Your task to perform on an android device: see tabs open on other devices in the chrome app Image 0: 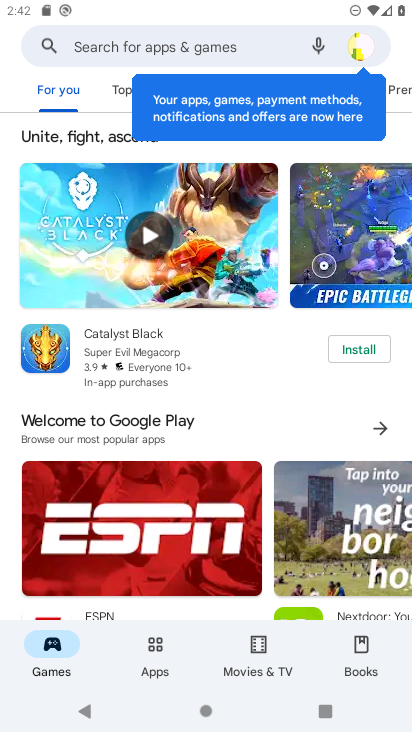
Step 0: press home button
Your task to perform on an android device: see tabs open on other devices in the chrome app Image 1: 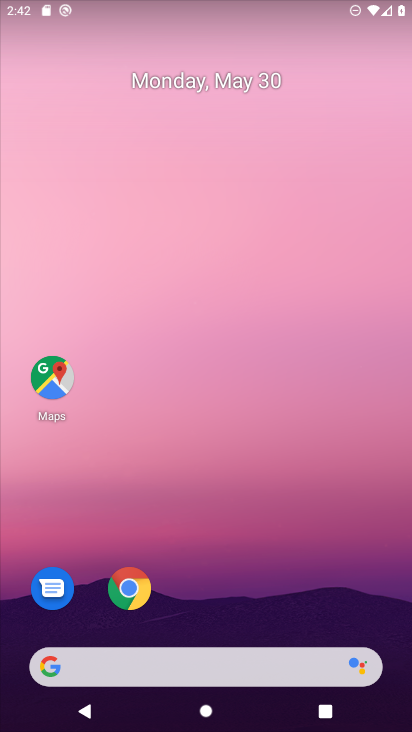
Step 1: click (129, 578)
Your task to perform on an android device: see tabs open on other devices in the chrome app Image 2: 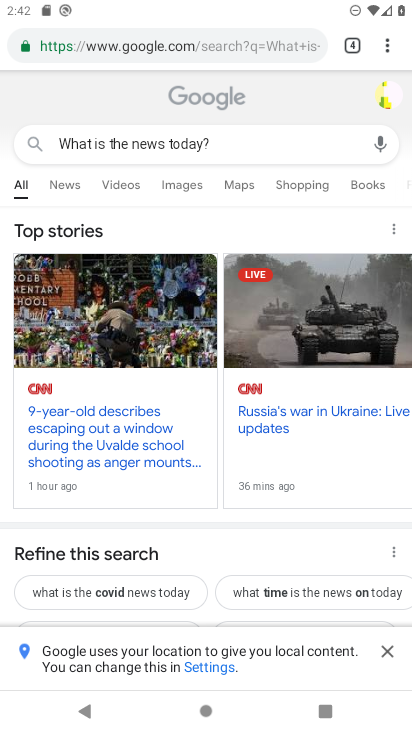
Step 2: click (389, 35)
Your task to perform on an android device: see tabs open on other devices in the chrome app Image 3: 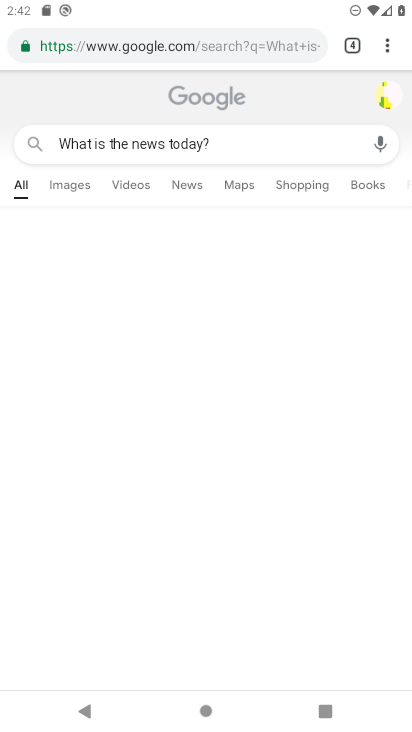
Step 3: click (384, 40)
Your task to perform on an android device: see tabs open on other devices in the chrome app Image 4: 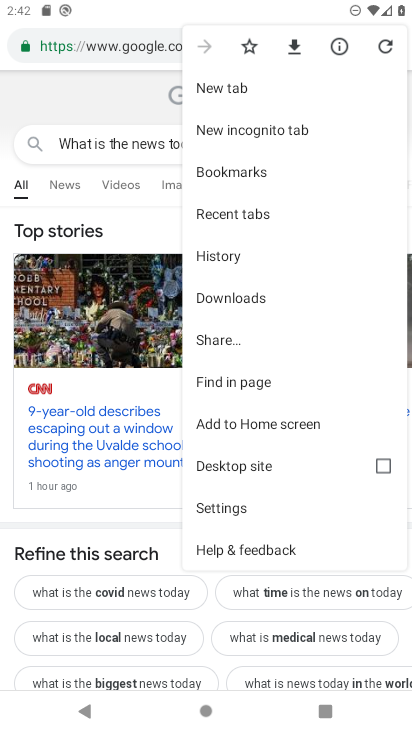
Step 4: click (253, 84)
Your task to perform on an android device: see tabs open on other devices in the chrome app Image 5: 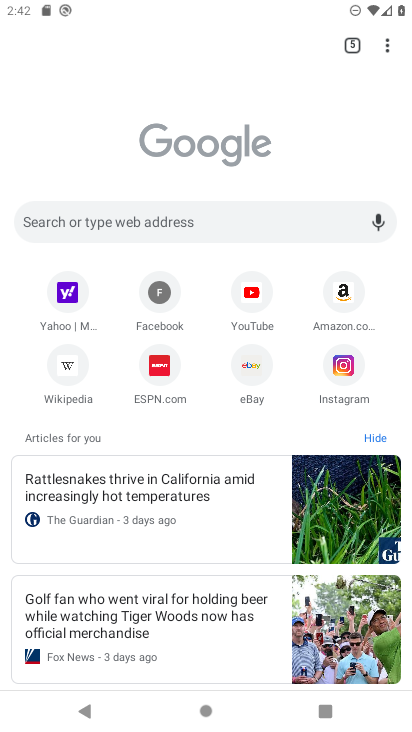
Step 5: click (384, 48)
Your task to perform on an android device: see tabs open on other devices in the chrome app Image 6: 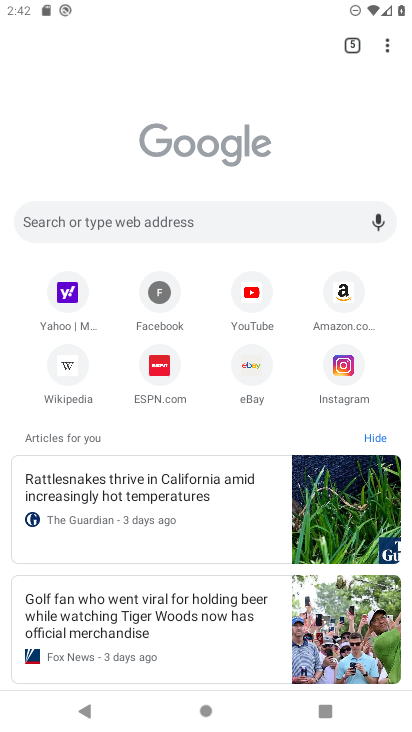
Step 6: click (388, 35)
Your task to perform on an android device: see tabs open on other devices in the chrome app Image 7: 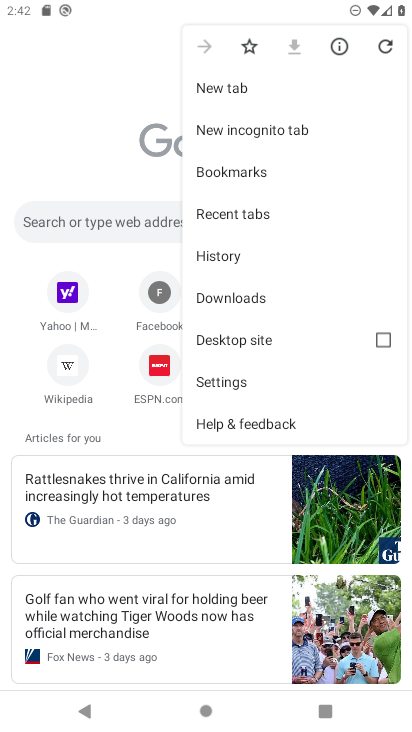
Step 7: click (224, 253)
Your task to perform on an android device: see tabs open on other devices in the chrome app Image 8: 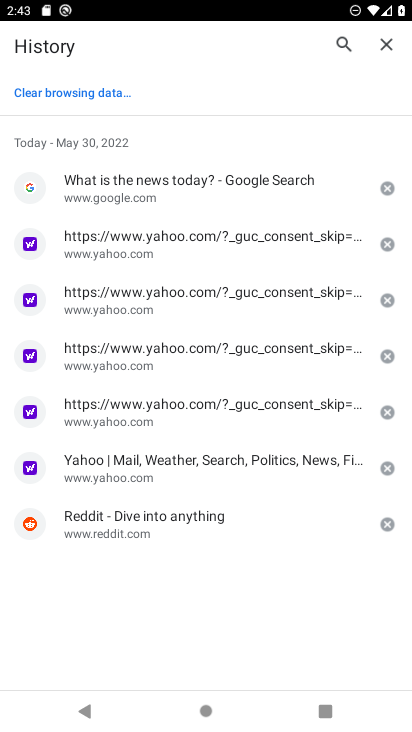
Step 8: task complete